Your task to perform on an android device: toggle javascript in the chrome app Image 0: 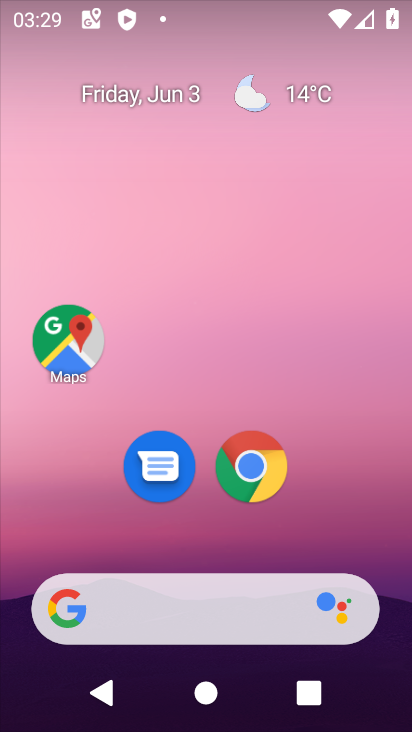
Step 0: press home button
Your task to perform on an android device: toggle javascript in the chrome app Image 1: 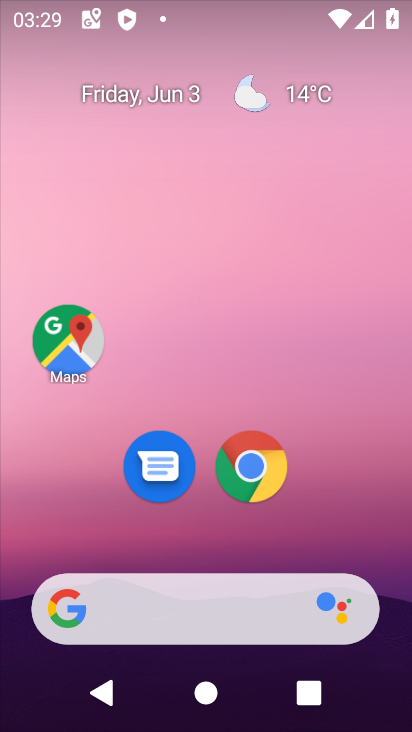
Step 1: click (317, 83)
Your task to perform on an android device: toggle javascript in the chrome app Image 2: 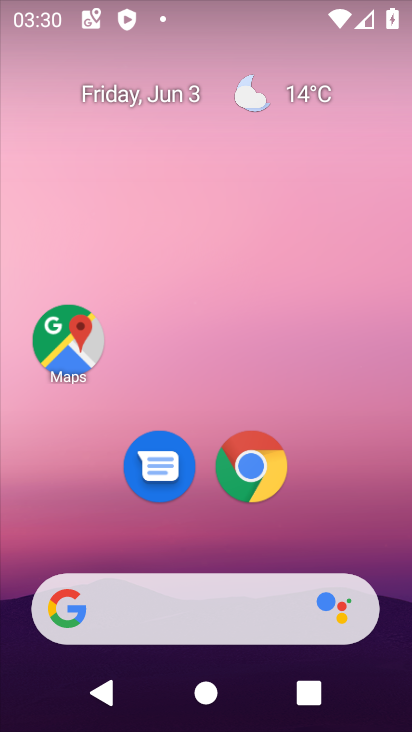
Step 2: click (244, 465)
Your task to perform on an android device: toggle javascript in the chrome app Image 3: 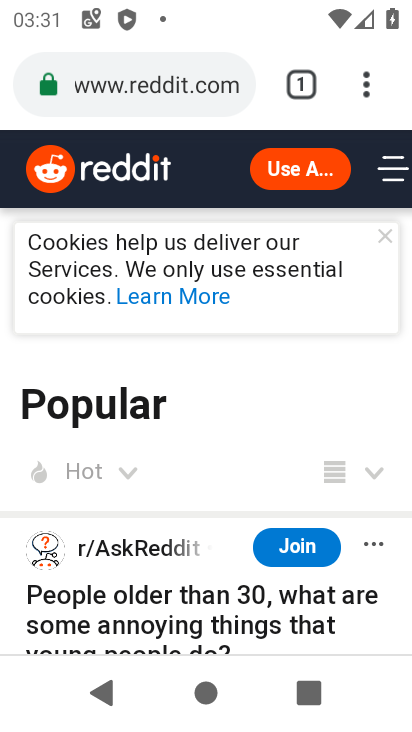
Step 3: click (371, 84)
Your task to perform on an android device: toggle javascript in the chrome app Image 4: 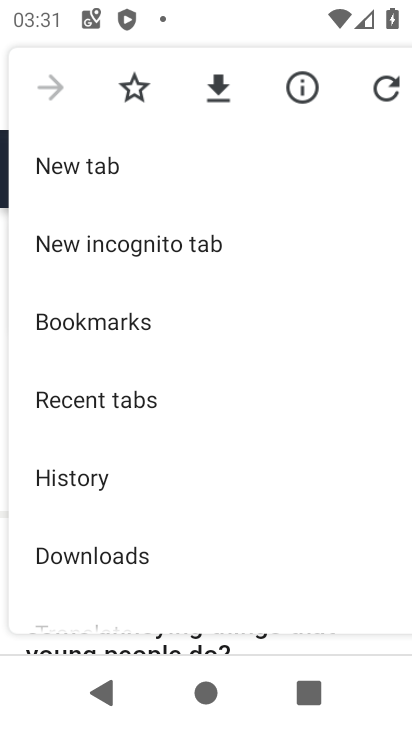
Step 4: drag from (193, 577) to (217, 162)
Your task to perform on an android device: toggle javascript in the chrome app Image 5: 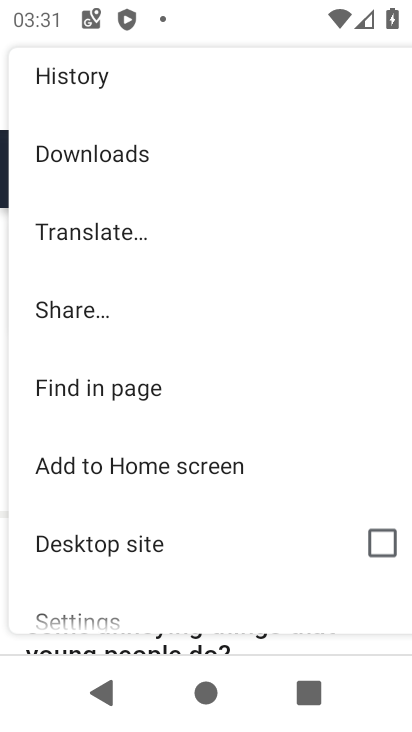
Step 5: click (142, 605)
Your task to perform on an android device: toggle javascript in the chrome app Image 6: 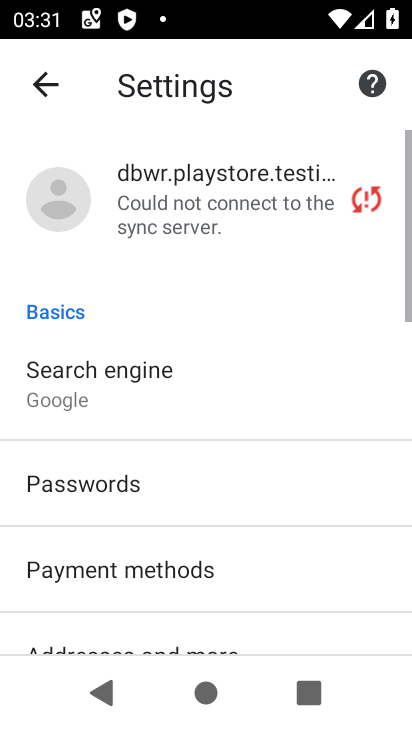
Step 6: drag from (186, 593) to (222, 78)
Your task to perform on an android device: toggle javascript in the chrome app Image 7: 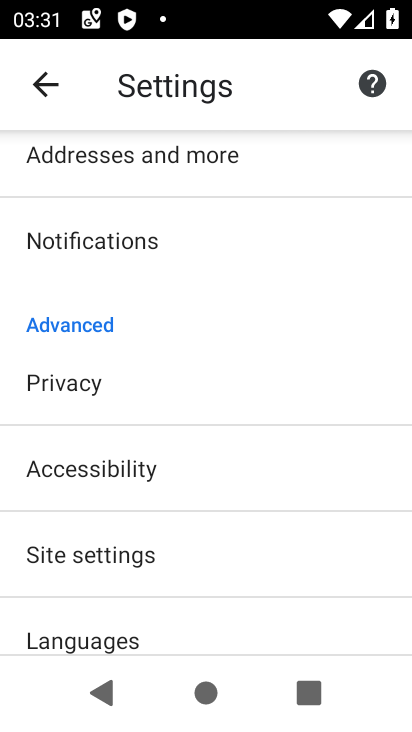
Step 7: click (178, 549)
Your task to perform on an android device: toggle javascript in the chrome app Image 8: 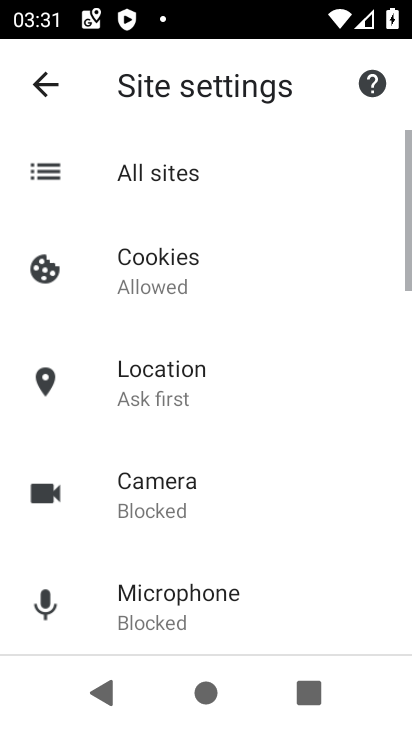
Step 8: drag from (225, 557) to (253, 150)
Your task to perform on an android device: toggle javascript in the chrome app Image 9: 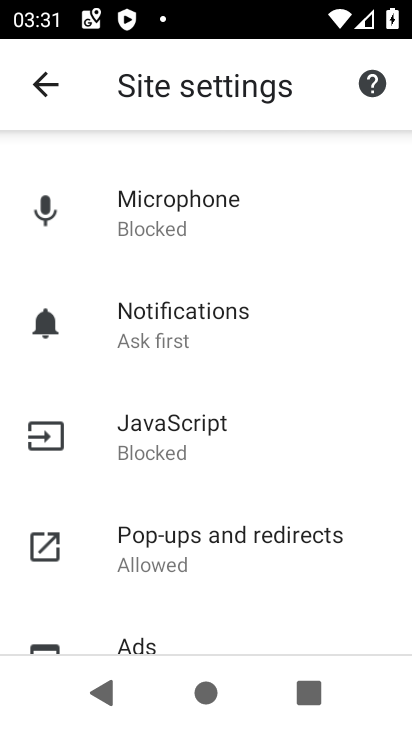
Step 9: click (196, 443)
Your task to perform on an android device: toggle javascript in the chrome app Image 10: 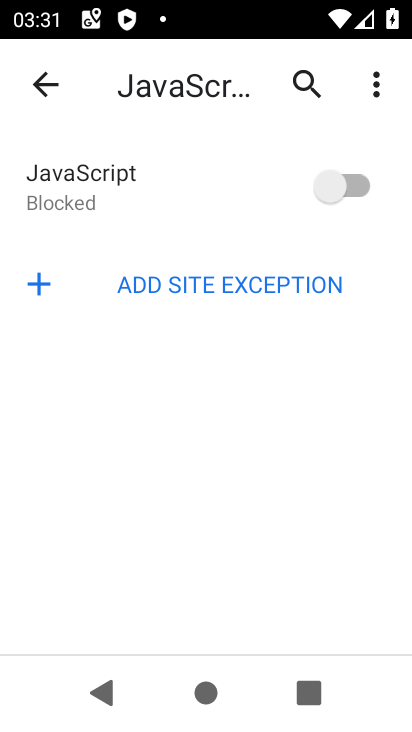
Step 10: click (349, 201)
Your task to perform on an android device: toggle javascript in the chrome app Image 11: 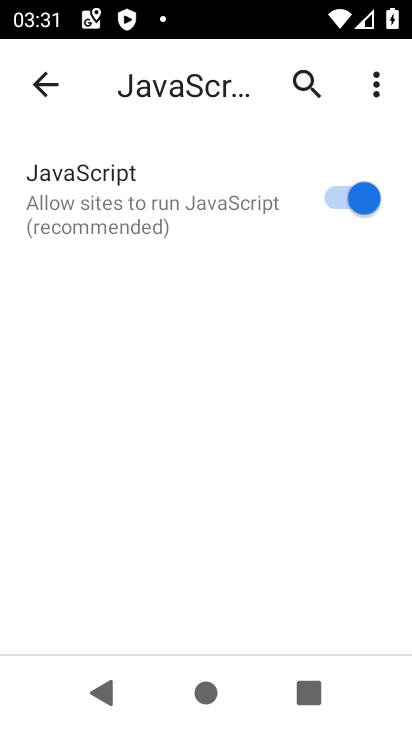
Step 11: task complete